Your task to perform on an android device: find photos in the google photos app Image 0: 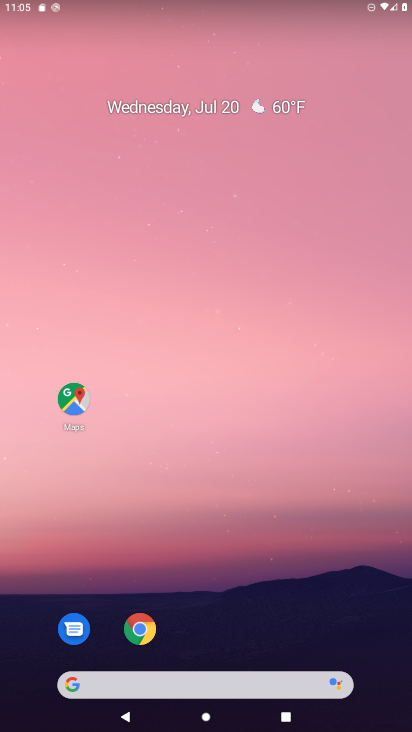
Step 0: drag from (222, 609) to (237, 133)
Your task to perform on an android device: find photos in the google photos app Image 1: 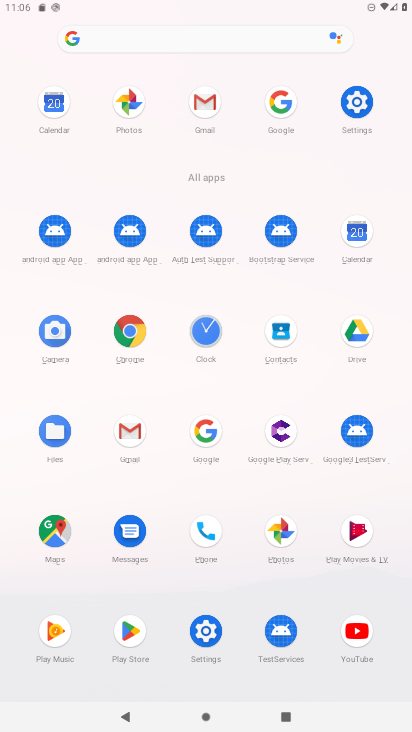
Step 1: click (132, 108)
Your task to perform on an android device: find photos in the google photos app Image 2: 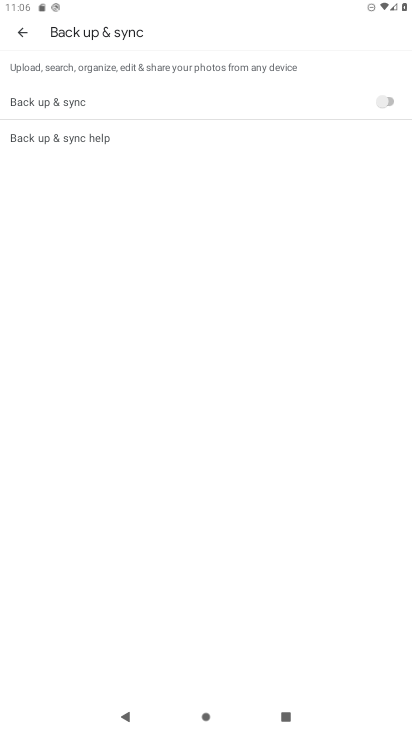
Step 2: click (12, 31)
Your task to perform on an android device: find photos in the google photos app Image 3: 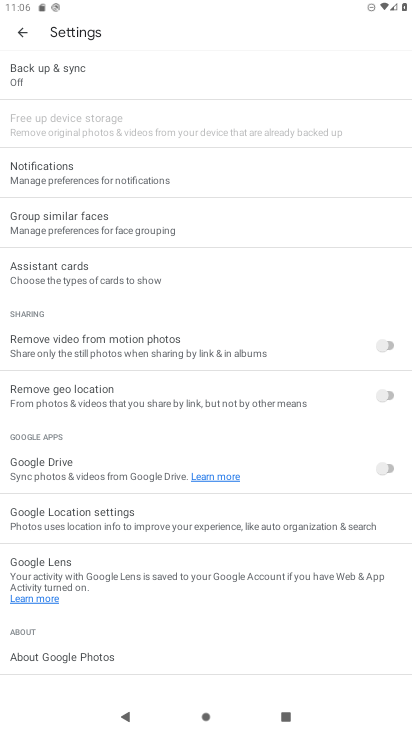
Step 3: click (16, 41)
Your task to perform on an android device: find photos in the google photos app Image 4: 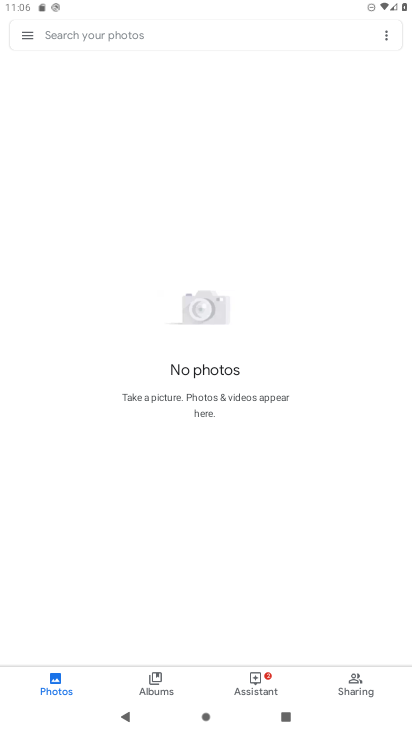
Step 4: click (148, 44)
Your task to perform on an android device: find photos in the google photos app Image 5: 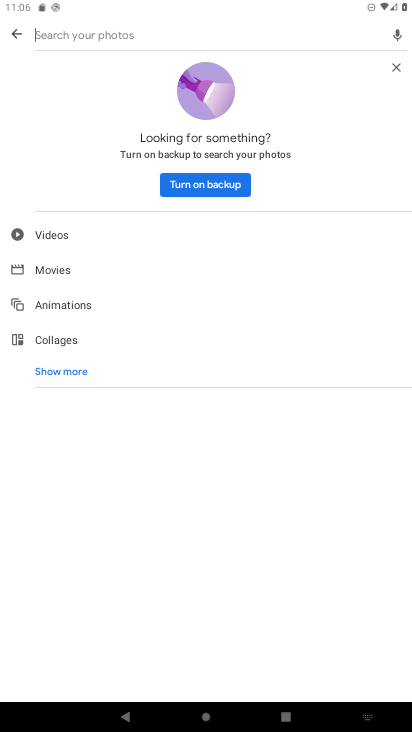
Step 5: type "aa"
Your task to perform on an android device: find photos in the google photos app Image 6: 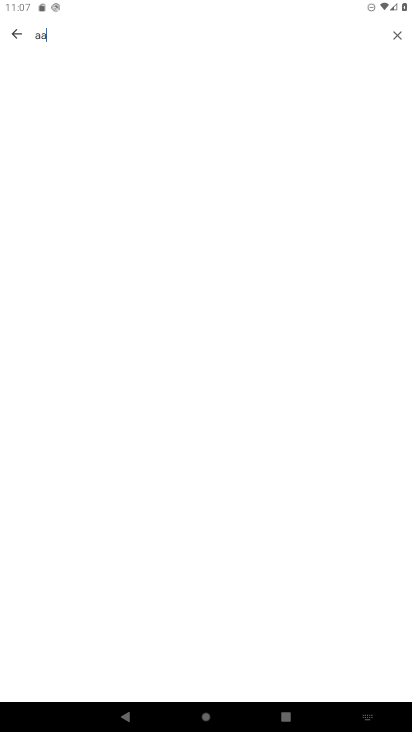
Step 6: task complete